Your task to perform on an android device: empty trash in google photos Image 0: 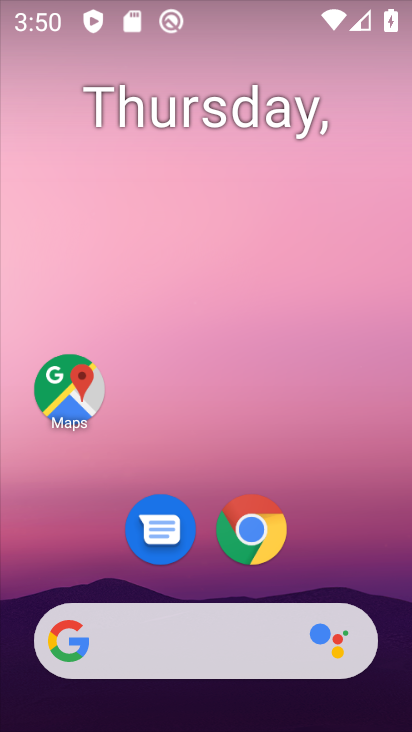
Step 0: drag from (92, 561) to (160, 212)
Your task to perform on an android device: empty trash in google photos Image 1: 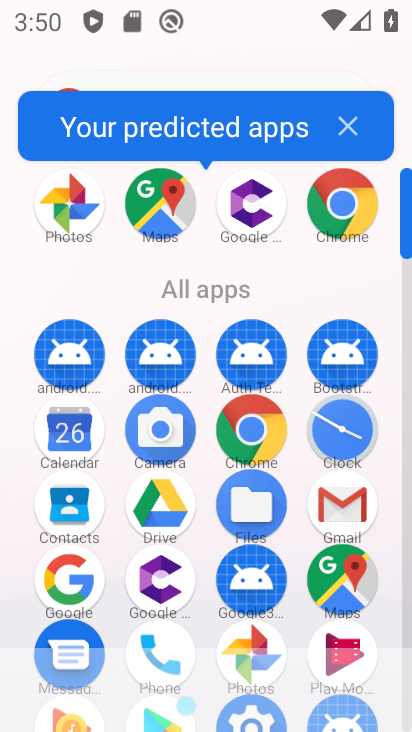
Step 1: drag from (214, 613) to (270, 461)
Your task to perform on an android device: empty trash in google photos Image 2: 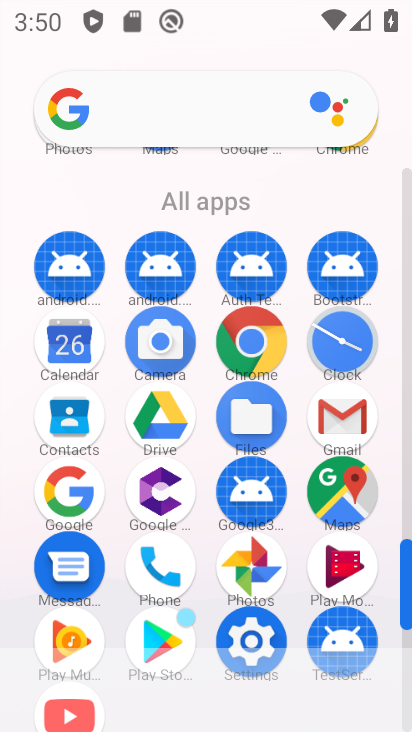
Step 2: click (255, 567)
Your task to perform on an android device: empty trash in google photos Image 3: 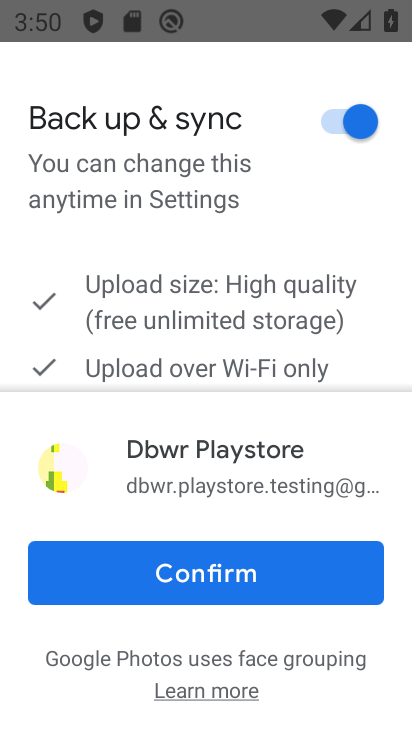
Step 3: click (209, 572)
Your task to perform on an android device: empty trash in google photos Image 4: 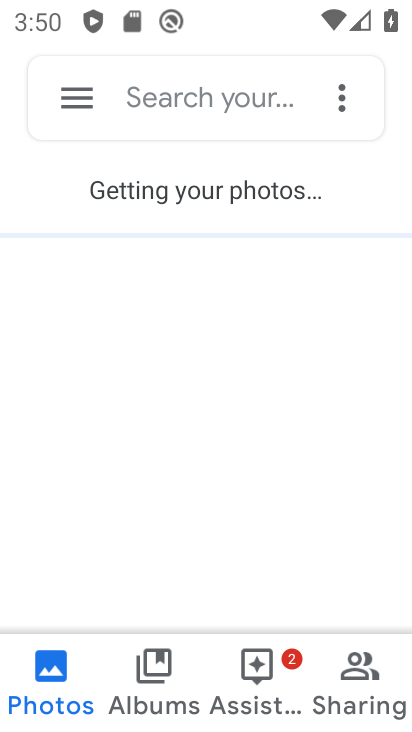
Step 4: click (80, 109)
Your task to perform on an android device: empty trash in google photos Image 5: 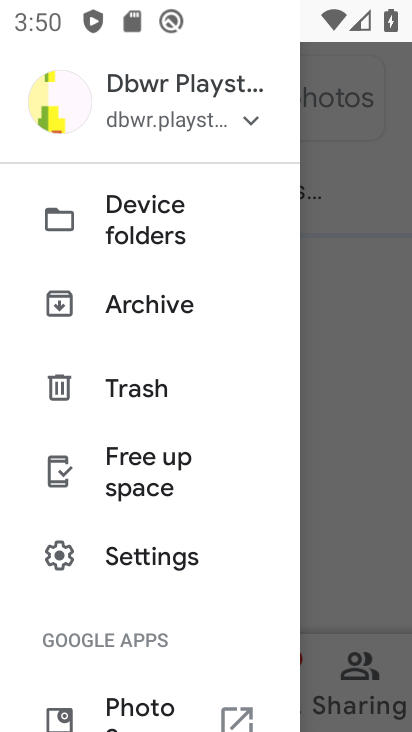
Step 5: click (129, 380)
Your task to perform on an android device: empty trash in google photos Image 6: 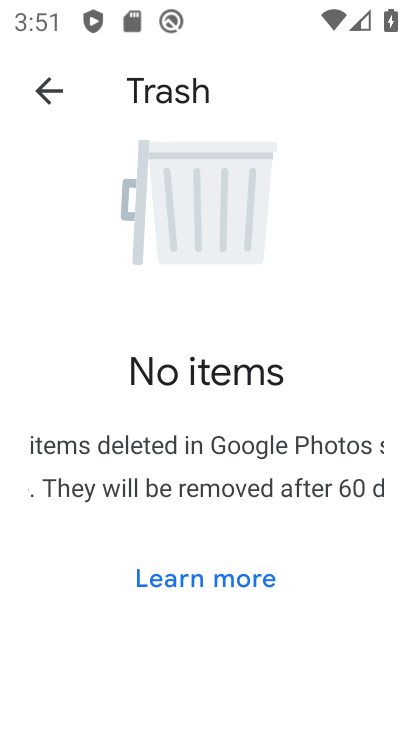
Step 6: task complete